Your task to perform on an android device: turn on notifications settings in the gmail app Image 0: 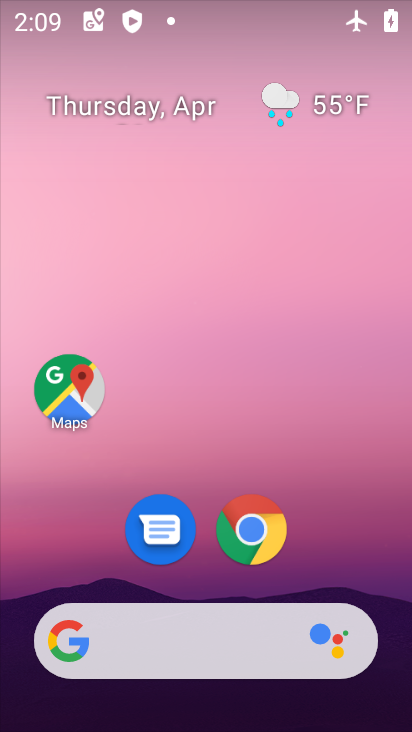
Step 0: drag from (316, 576) to (232, 218)
Your task to perform on an android device: turn on notifications settings in the gmail app Image 1: 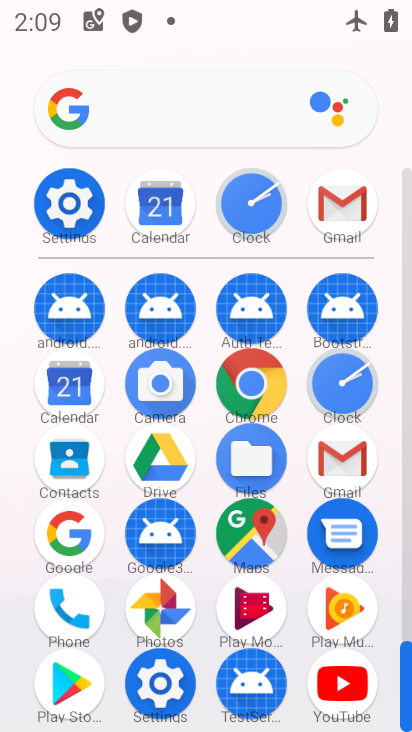
Step 1: click (355, 468)
Your task to perform on an android device: turn on notifications settings in the gmail app Image 2: 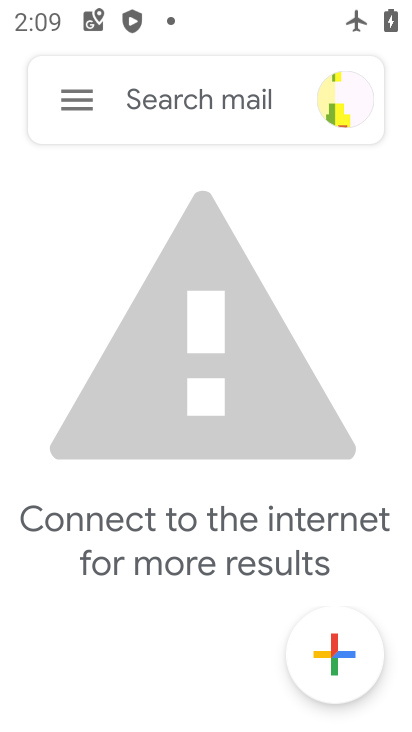
Step 2: click (82, 97)
Your task to perform on an android device: turn on notifications settings in the gmail app Image 3: 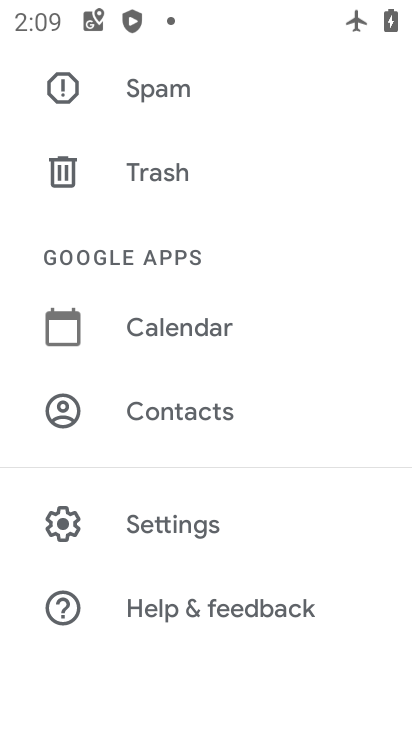
Step 3: click (195, 525)
Your task to perform on an android device: turn on notifications settings in the gmail app Image 4: 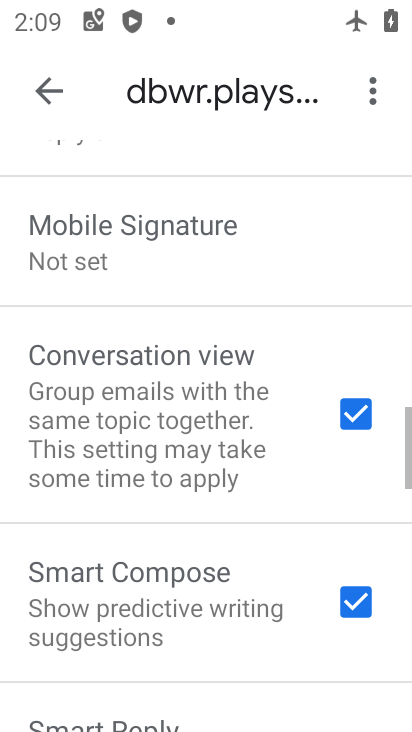
Step 4: drag from (176, 290) to (217, 688)
Your task to perform on an android device: turn on notifications settings in the gmail app Image 5: 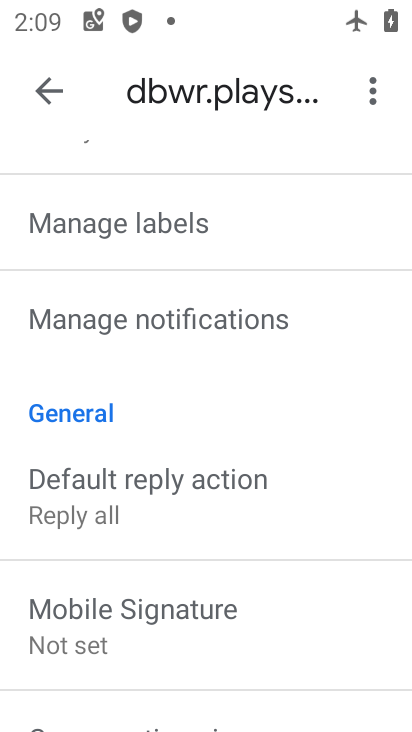
Step 5: drag from (141, 387) to (150, 686)
Your task to perform on an android device: turn on notifications settings in the gmail app Image 6: 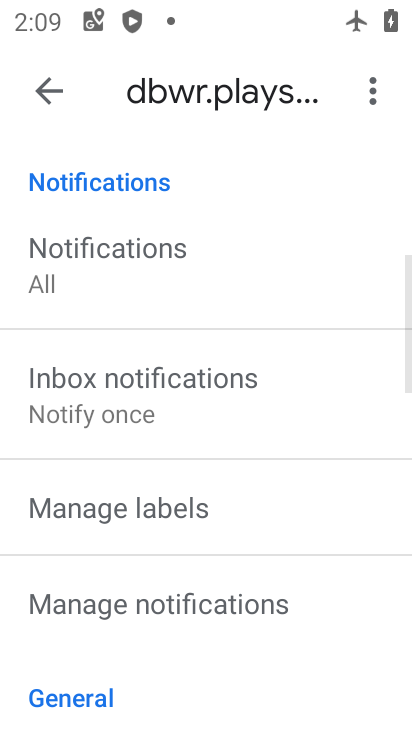
Step 6: click (111, 297)
Your task to perform on an android device: turn on notifications settings in the gmail app Image 7: 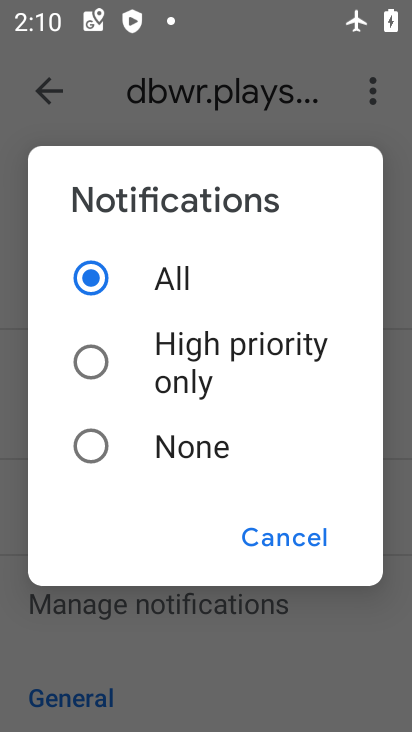
Step 7: click (317, 541)
Your task to perform on an android device: turn on notifications settings in the gmail app Image 8: 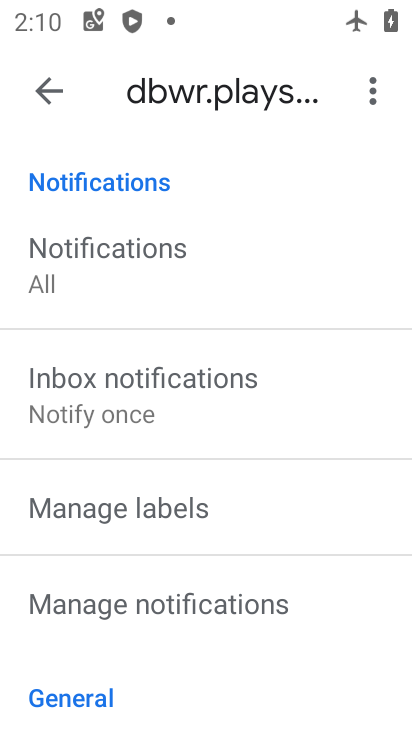
Step 8: click (231, 611)
Your task to perform on an android device: turn on notifications settings in the gmail app Image 9: 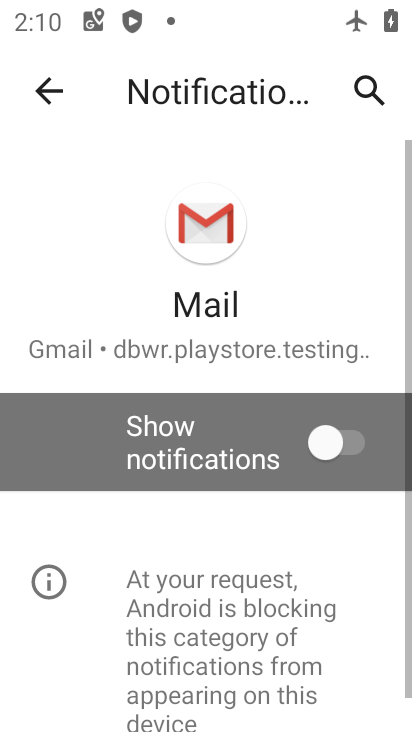
Step 9: click (321, 436)
Your task to perform on an android device: turn on notifications settings in the gmail app Image 10: 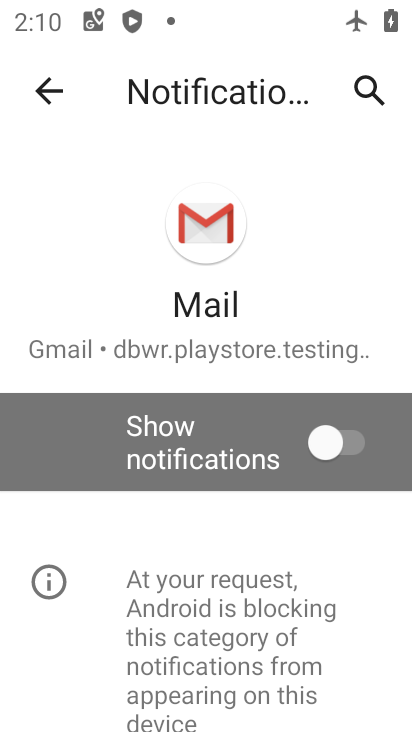
Step 10: click (323, 444)
Your task to perform on an android device: turn on notifications settings in the gmail app Image 11: 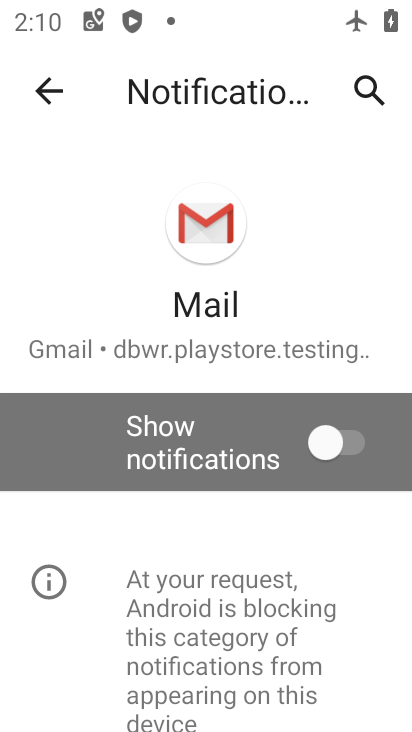
Step 11: click (317, 446)
Your task to perform on an android device: turn on notifications settings in the gmail app Image 12: 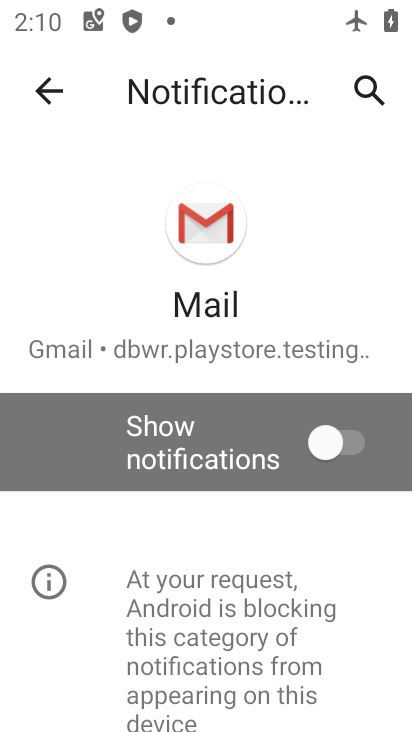
Step 12: click (46, 99)
Your task to perform on an android device: turn on notifications settings in the gmail app Image 13: 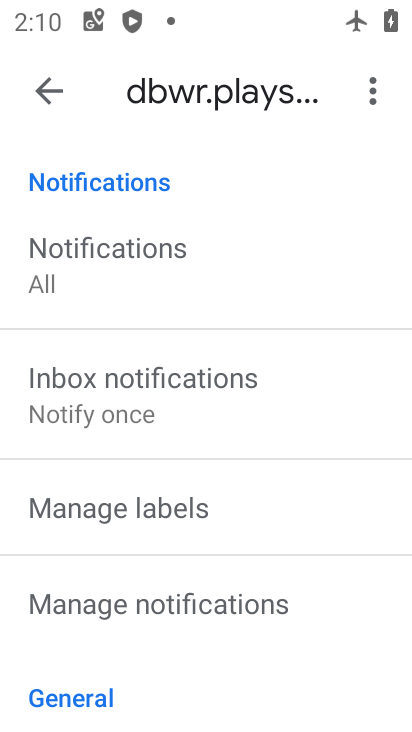
Step 13: click (46, 98)
Your task to perform on an android device: turn on notifications settings in the gmail app Image 14: 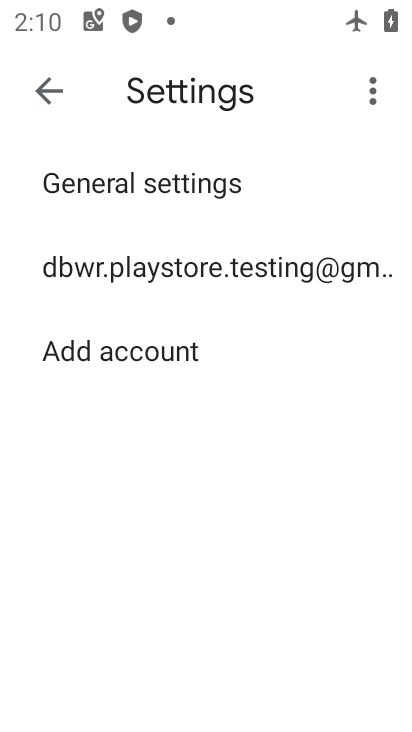
Step 14: click (128, 194)
Your task to perform on an android device: turn on notifications settings in the gmail app Image 15: 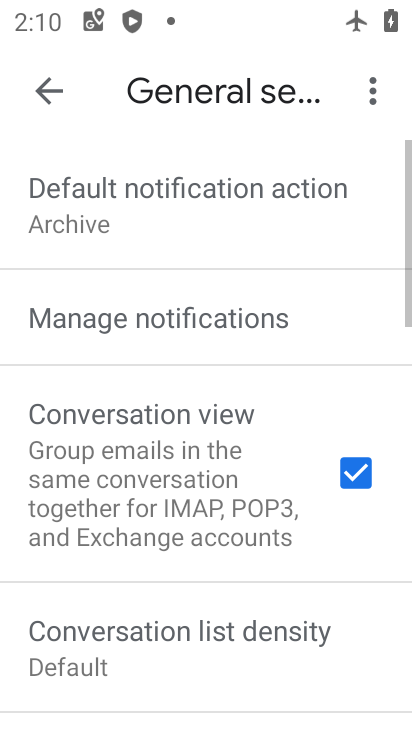
Step 15: click (171, 334)
Your task to perform on an android device: turn on notifications settings in the gmail app Image 16: 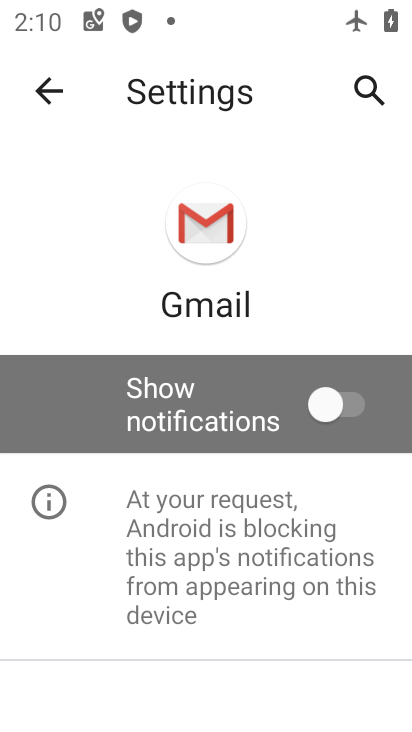
Step 16: click (334, 415)
Your task to perform on an android device: turn on notifications settings in the gmail app Image 17: 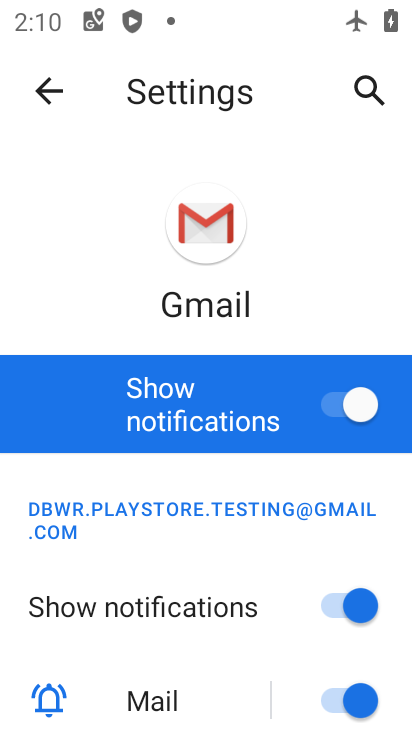
Step 17: task complete